Your task to perform on an android device: change the clock display to show seconds Image 0: 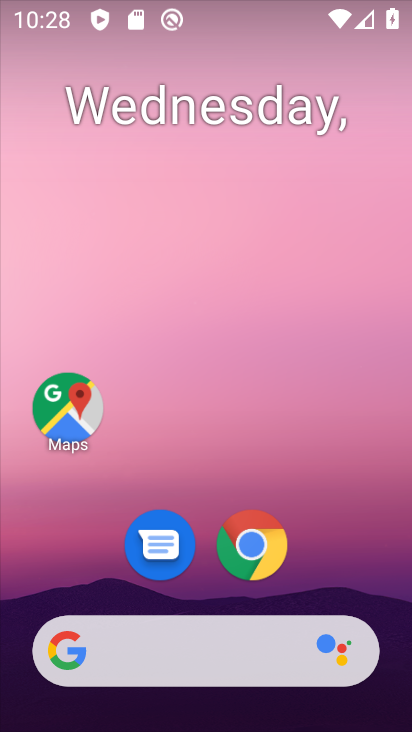
Step 0: drag from (203, 727) to (310, 111)
Your task to perform on an android device: change the clock display to show seconds Image 1: 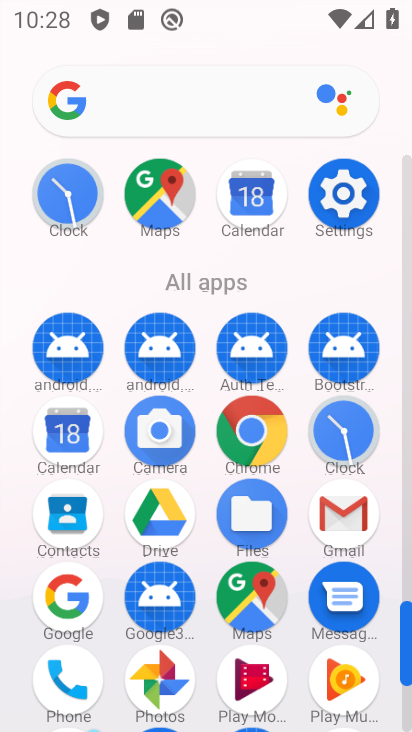
Step 1: click (53, 208)
Your task to perform on an android device: change the clock display to show seconds Image 2: 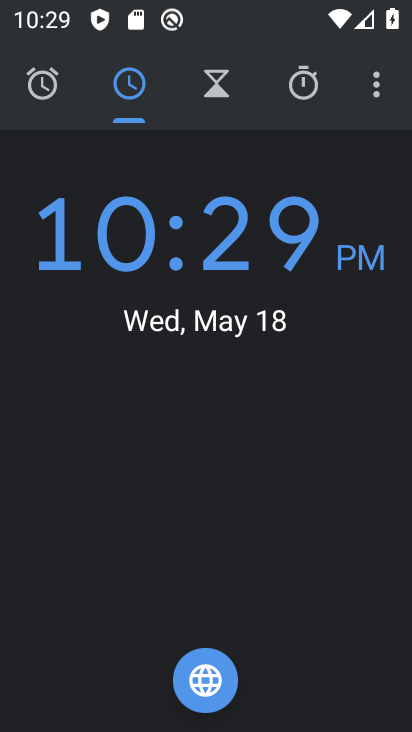
Step 2: click (379, 85)
Your task to perform on an android device: change the clock display to show seconds Image 3: 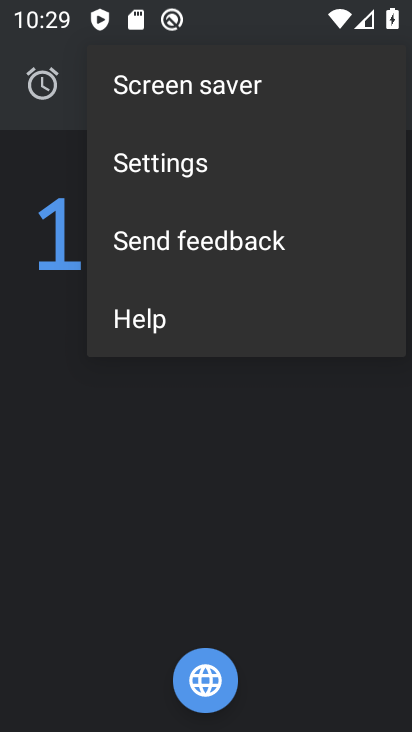
Step 3: click (188, 171)
Your task to perform on an android device: change the clock display to show seconds Image 4: 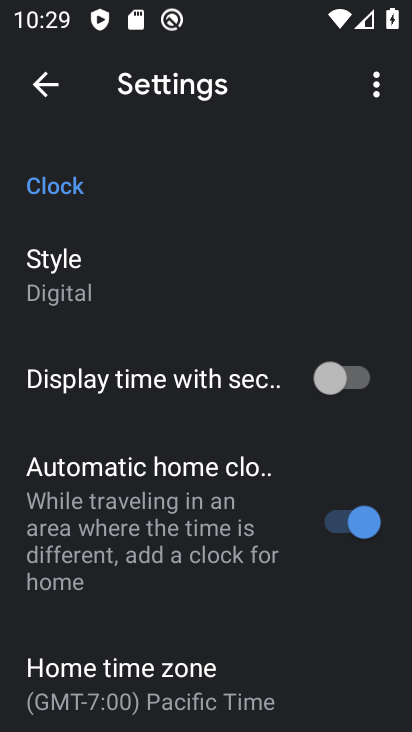
Step 4: click (356, 377)
Your task to perform on an android device: change the clock display to show seconds Image 5: 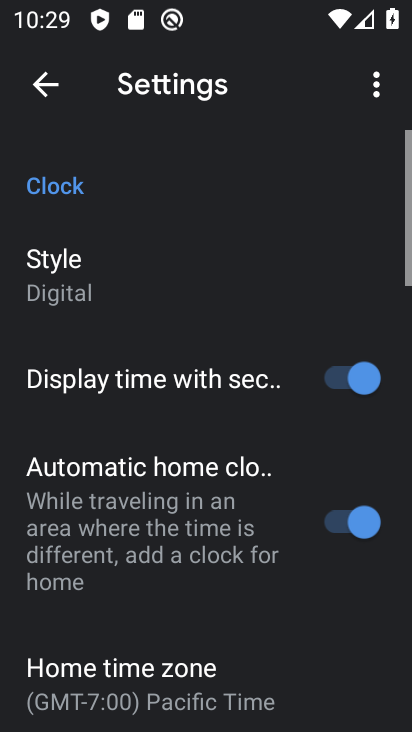
Step 5: task complete